Your task to perform on an android device: turn on translation in the chrome app Image 0: 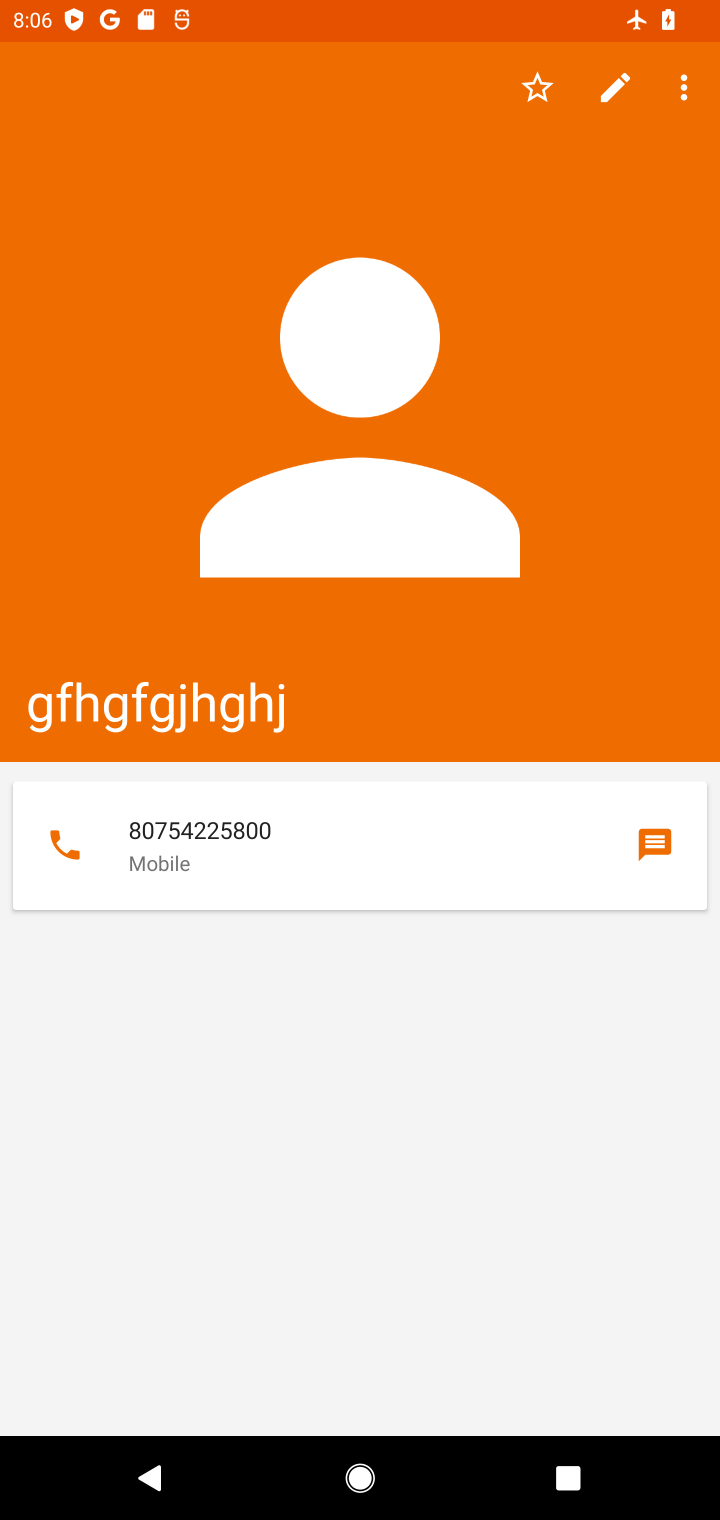
Step 0: press home button
Your task to perform on an android device: turn on translation in the chrome app Image 1: 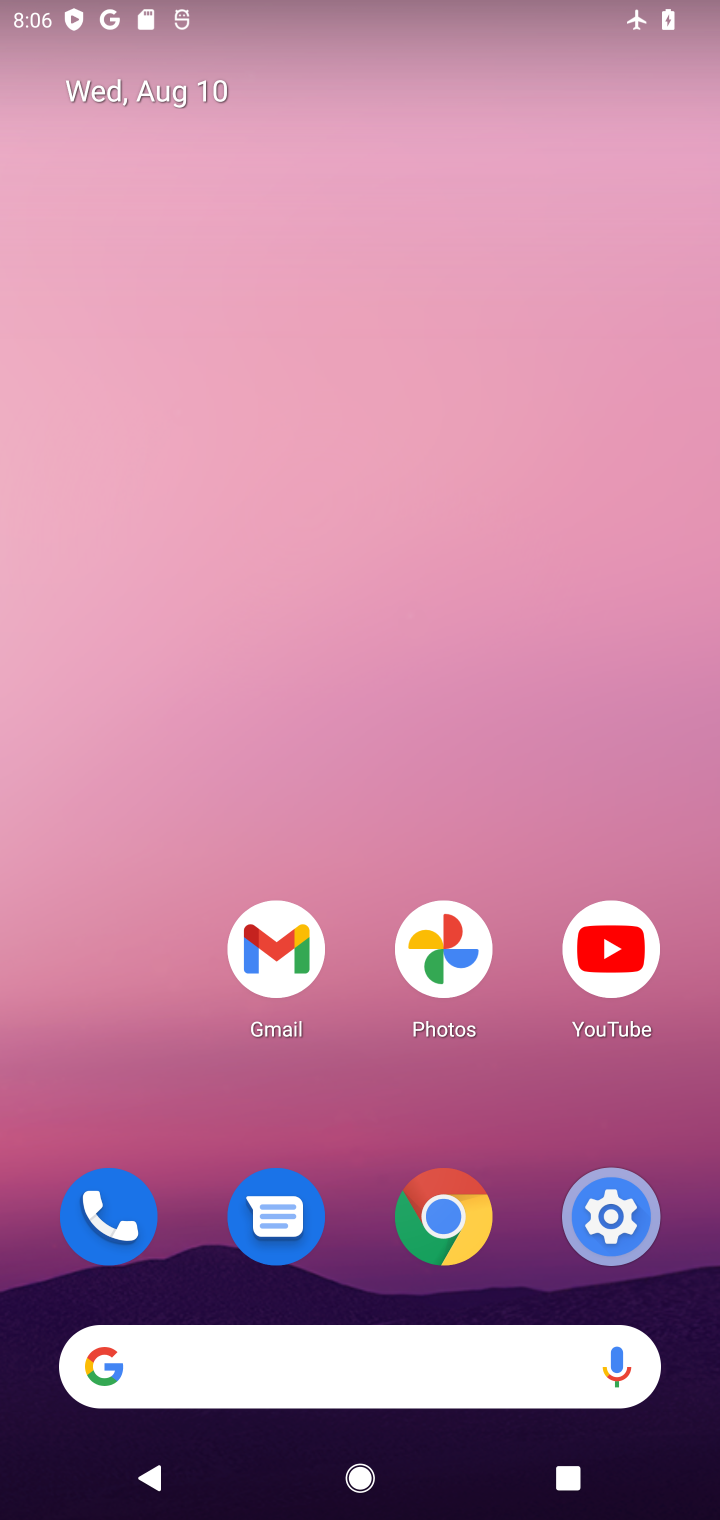
Step 1: click (439, 1208)
Your task to perform on an android device: turn on translation in the chrome app Image 2: 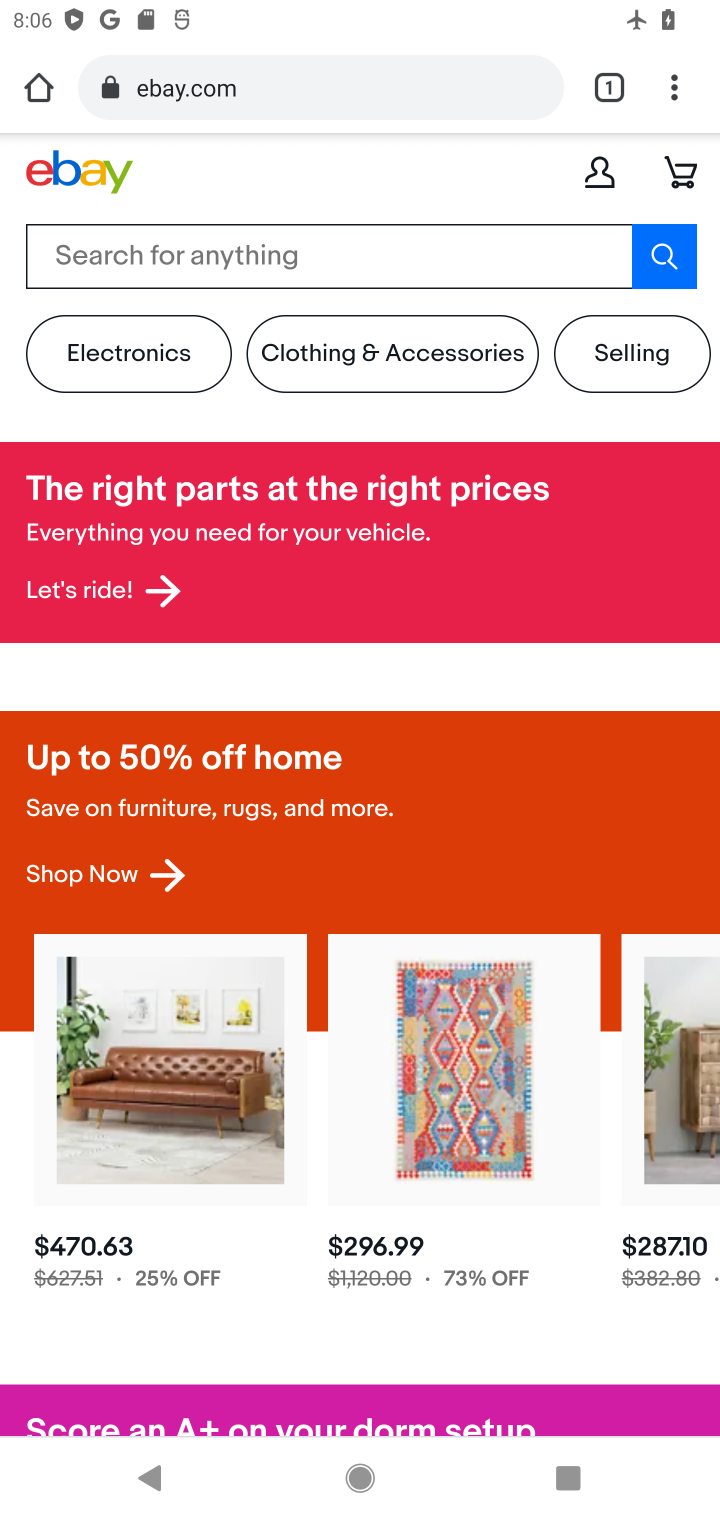
Step 2: click (682, 85)
Your task to perform on an android device: turn on translation in the chrome app Image 3: 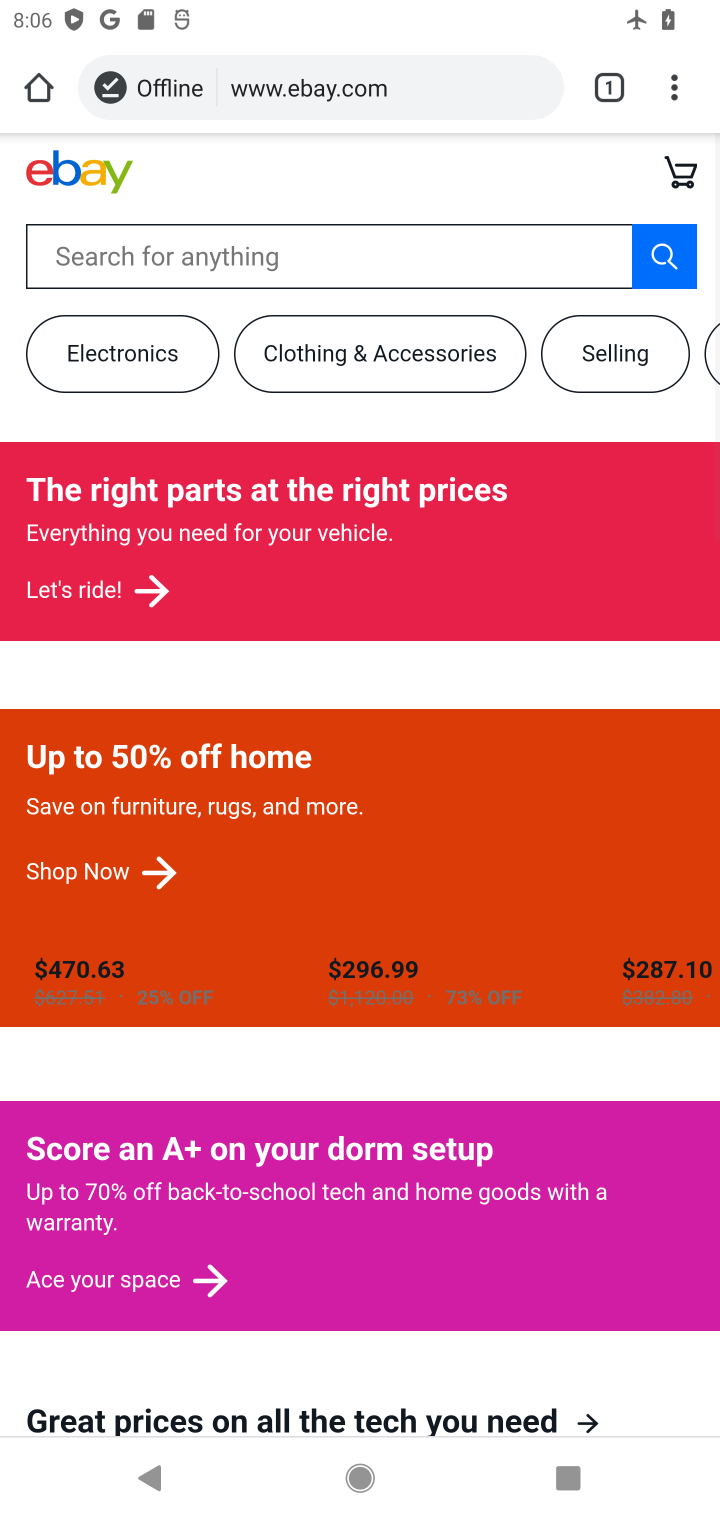
Step 3: click (671, 87)
Your task to perform on an android device: turn on translation in the chrome app Image 4: 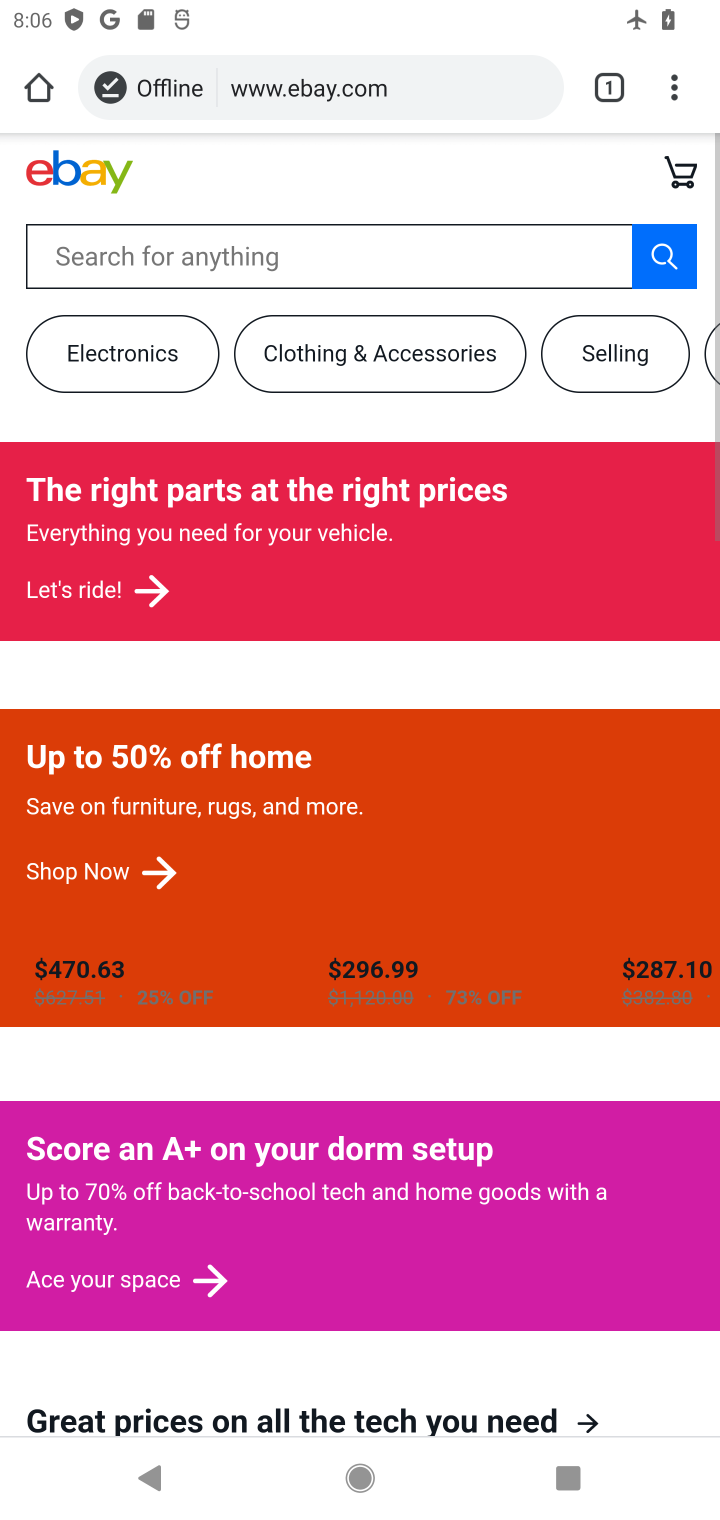
Step 4: click (671, 87)
Your task to perform on an android device: turn on translation in the chrome app Image 5: 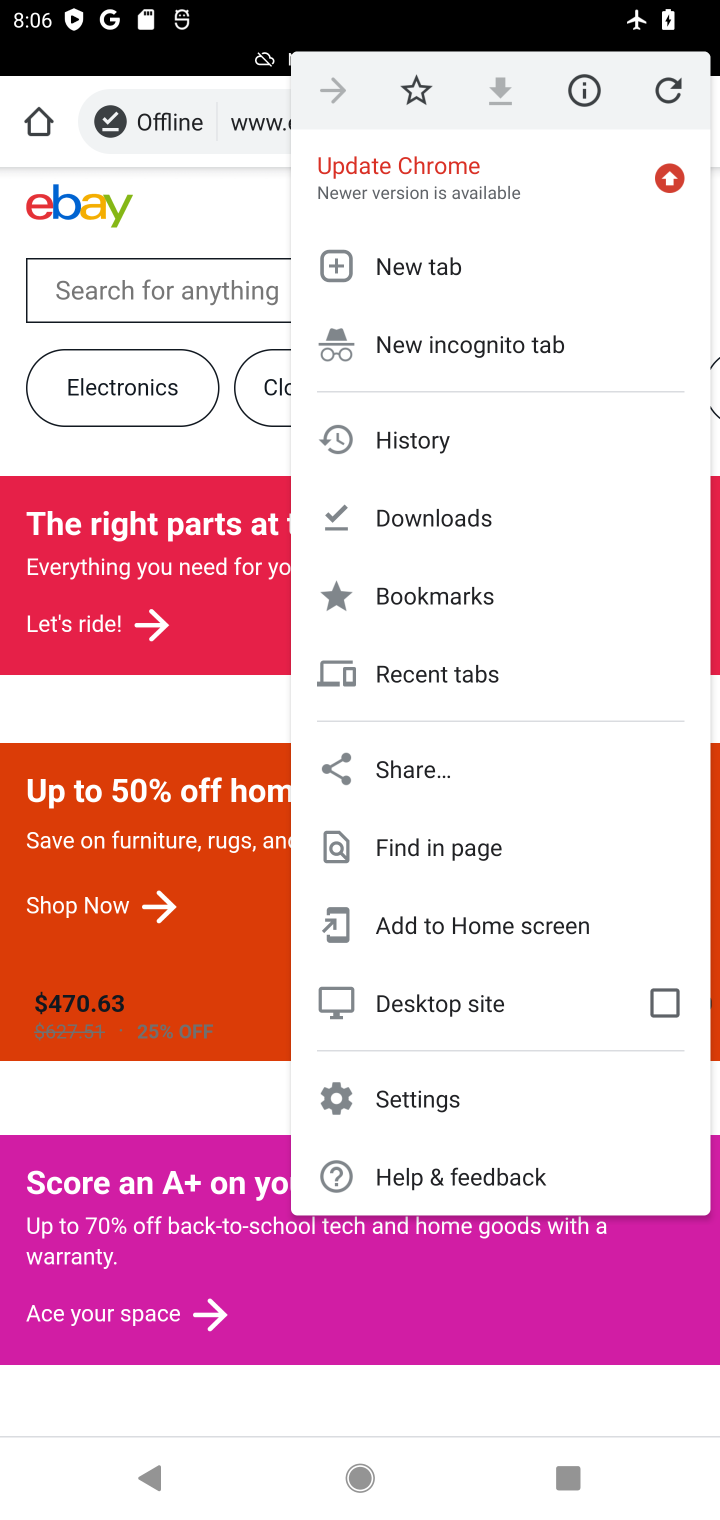
Step 5: click (437, 1115)
Your task to perform on an android device: turn on translation in the chrome app Image 6: 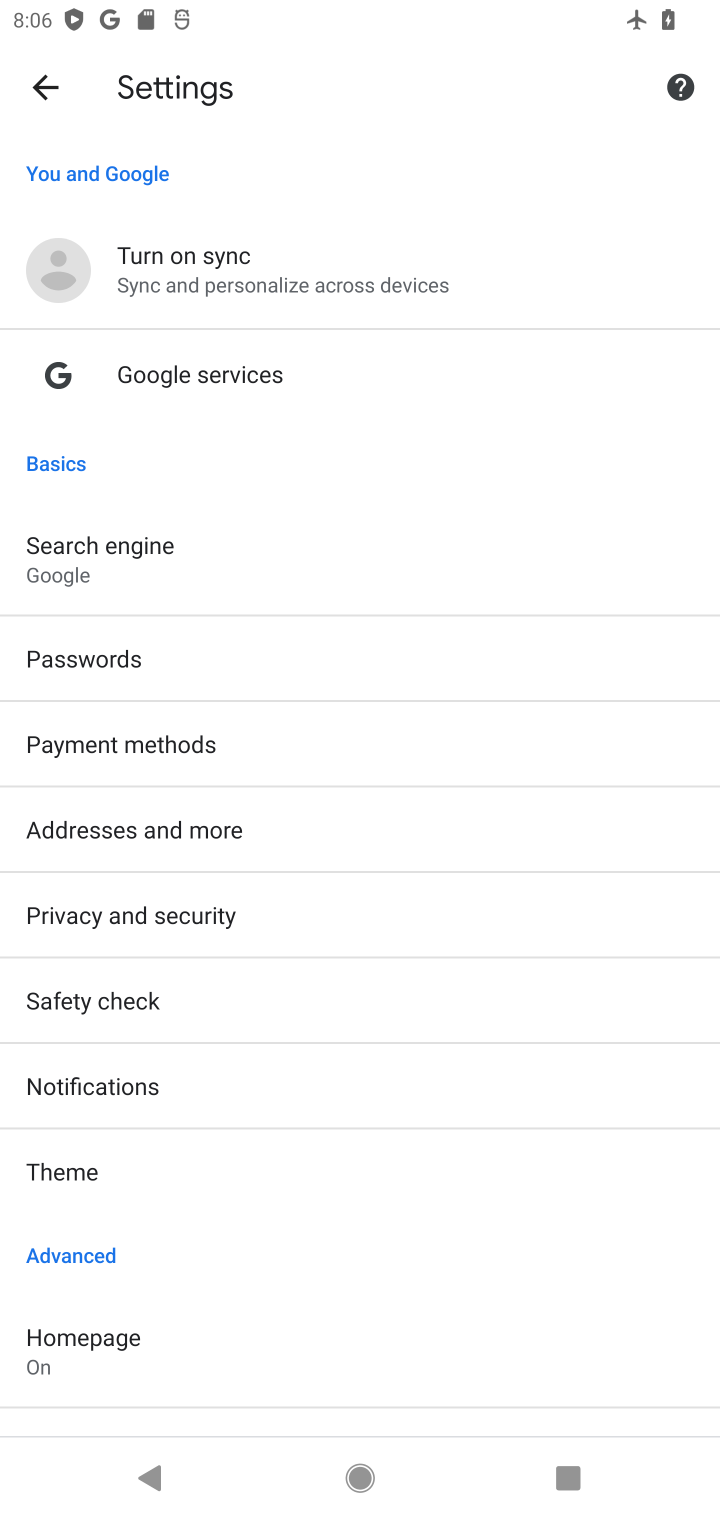
Step 6: drag from (17, 1453) to (320, 338)
Your task to perform on an android device: turn on translation in the chrome app Image 7: 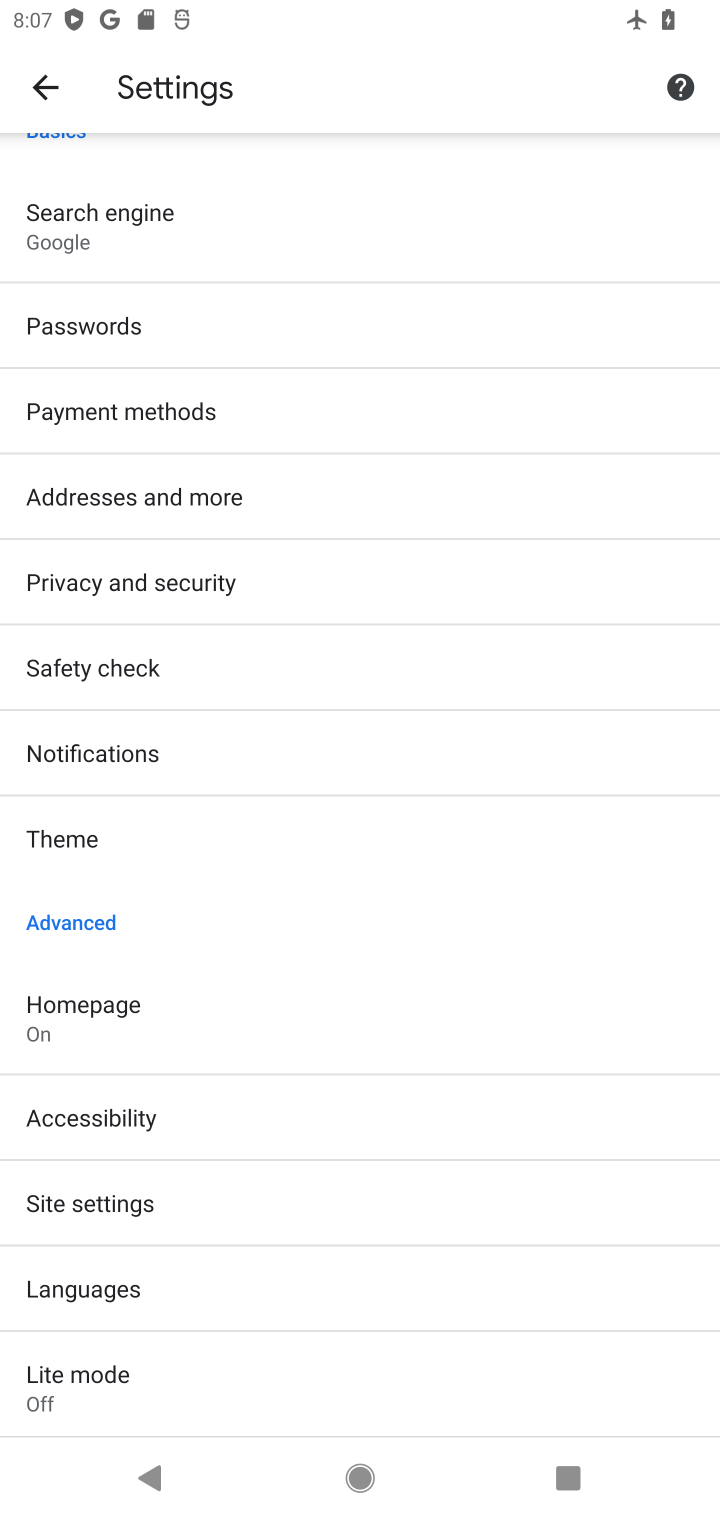
Step 7: click (107, 1279)
Your task to perform on an android device: turn on translation in the chrome app Image 8: 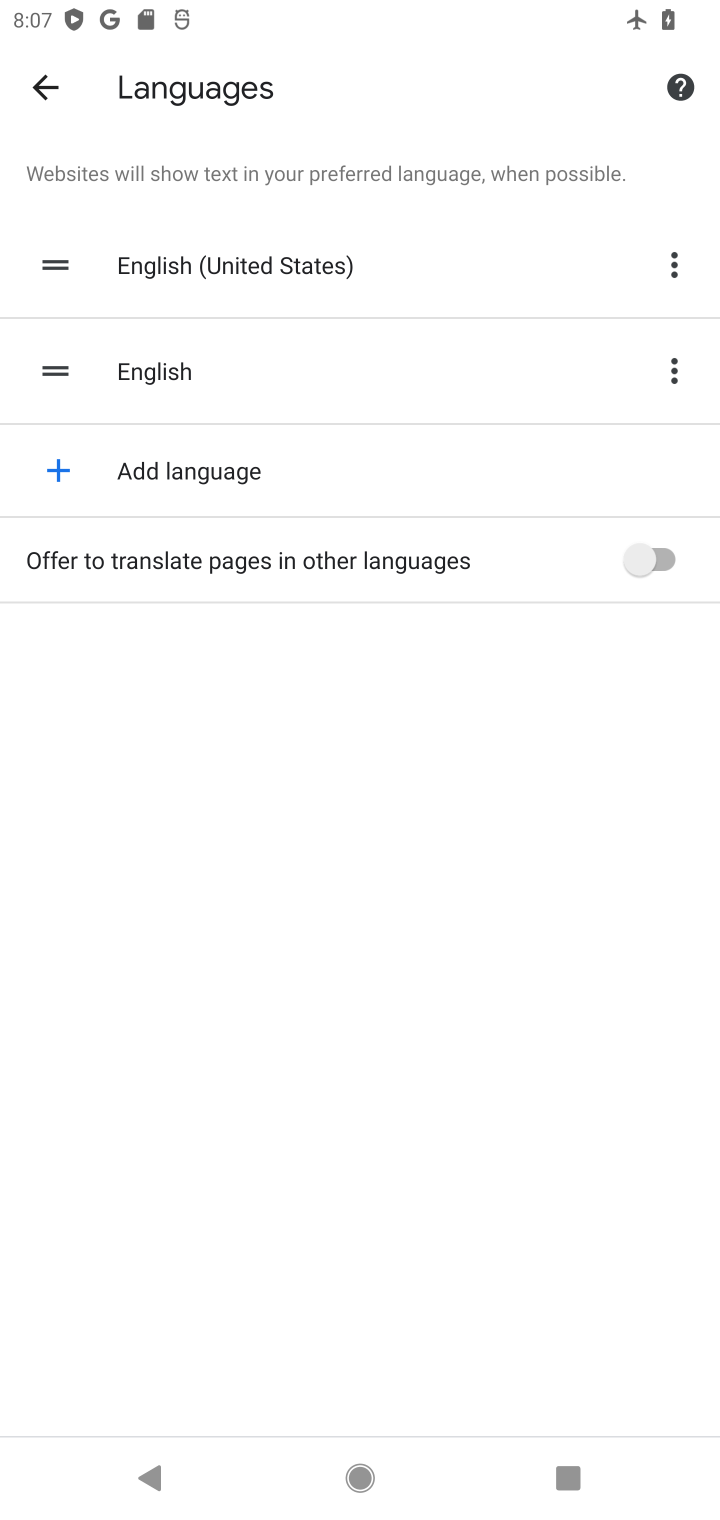
Step 8: click (644, 560)
Your task to perform on an android device: turn on translation in the chrome app Image 9: 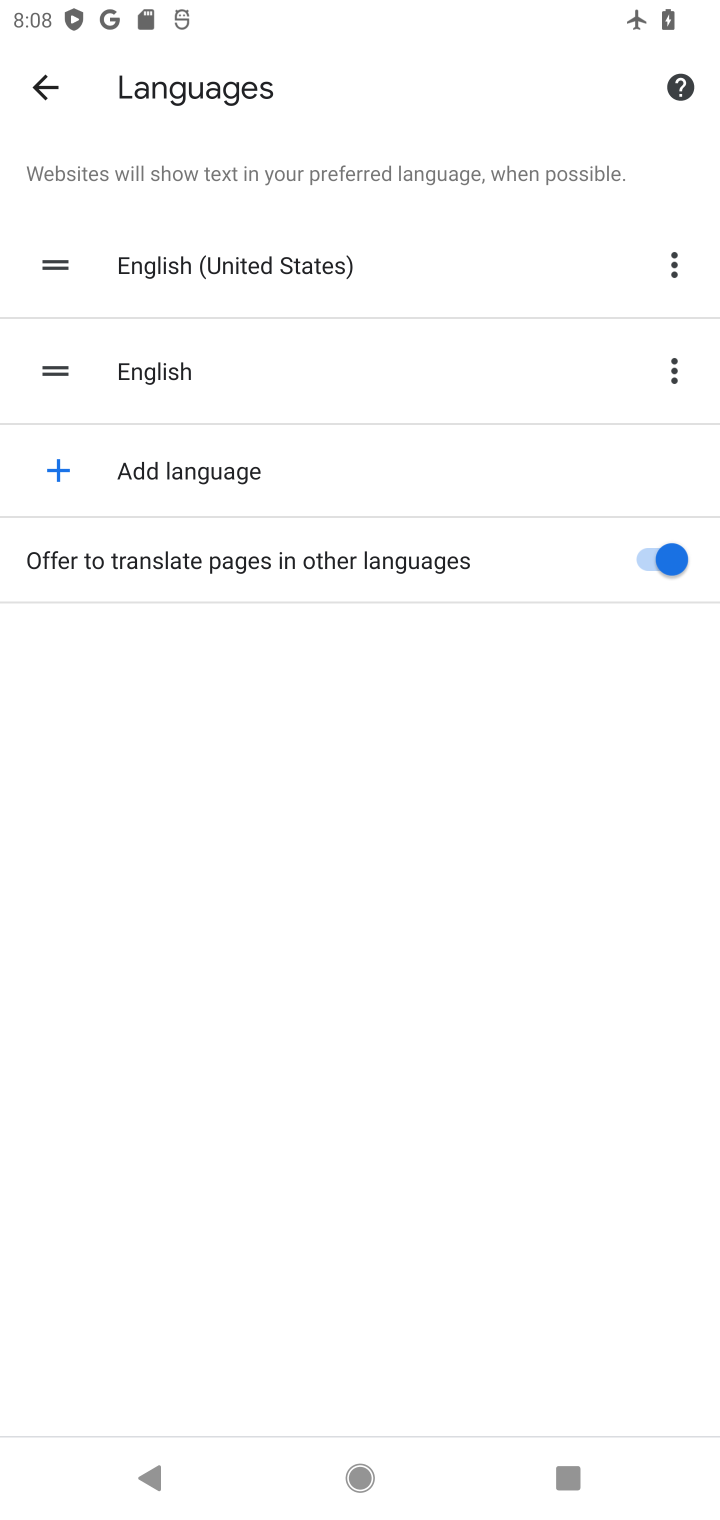
Step 9: task complete